Your task to perform on an android device: Is it going to rain tomorrow? Image 0: 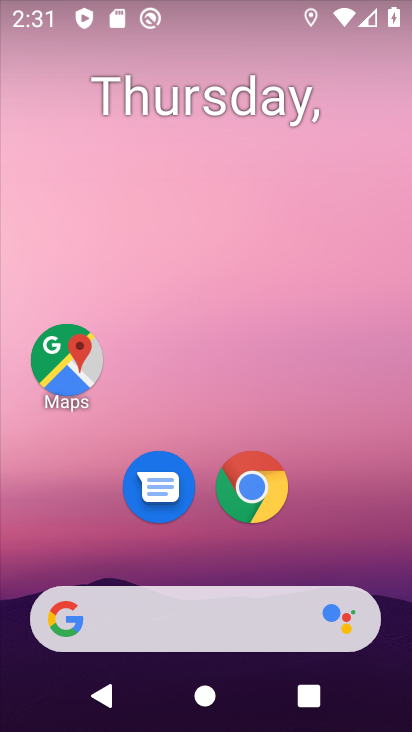
Step 0: drag from (354, 426) to (344, 40)
Your task to perform on an android device: Is it going to rain tomorrow? Image 1: 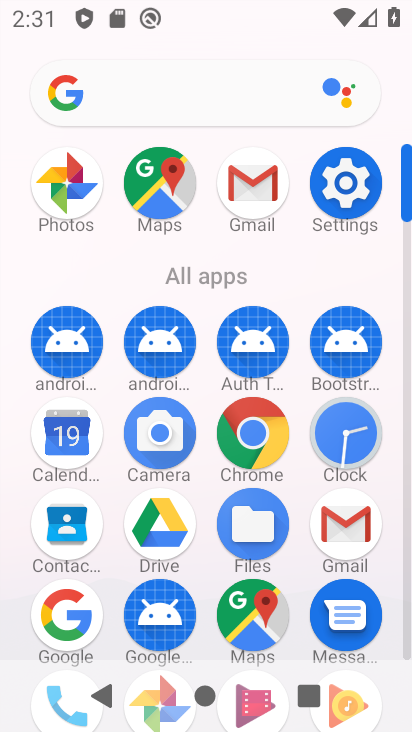
Step 1: click (61, 89)
Your task to perform on an android device: Is it going to rain tomorrow? Image 2: 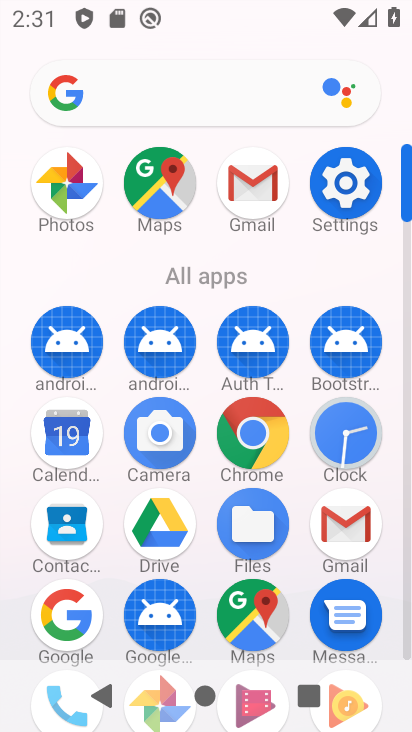
Step 2: click (61, 89)
Your task to perform on an android device: Is it going to rain tomorrow? Image 3: 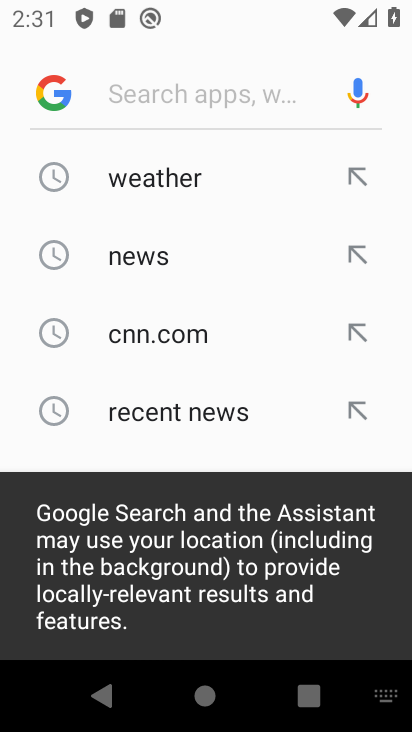
Step 3: click (53, 116)
Your task to perform on an android device: Is it going to rain tomorrow? Image 4: 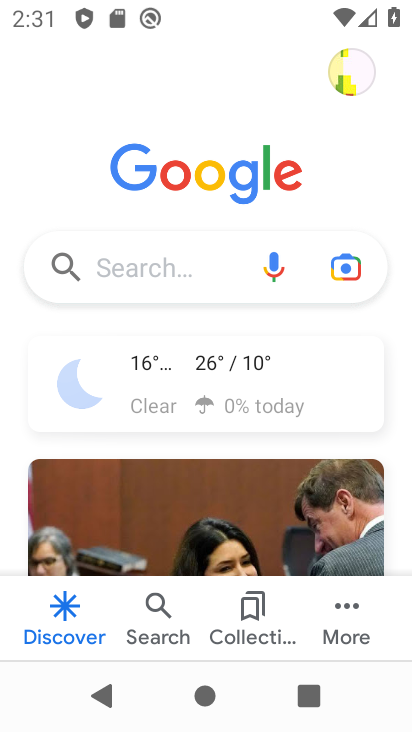
Step 4: click (160, 397)
Your task to perform on an android device: Is it going to rain tomorrow? Image 5: 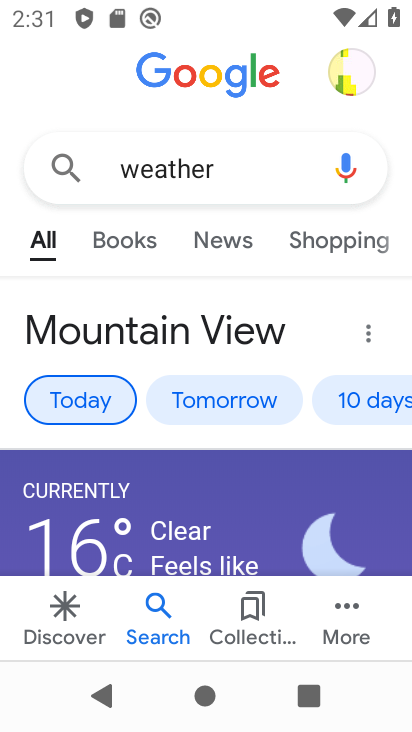
Step 5: task complete